Your task to perform on an android device: Open calendar and show me the fourth week of next month Image 0: 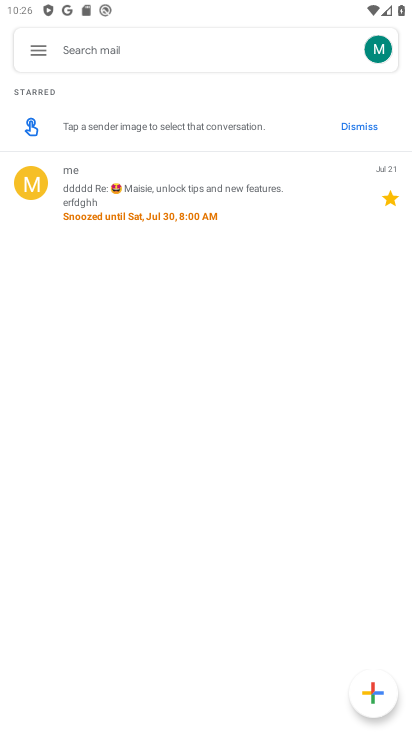
Step 0: press home button
Your task to perform on an android device: Open calendar and show me the fourth week of next month Image 1: 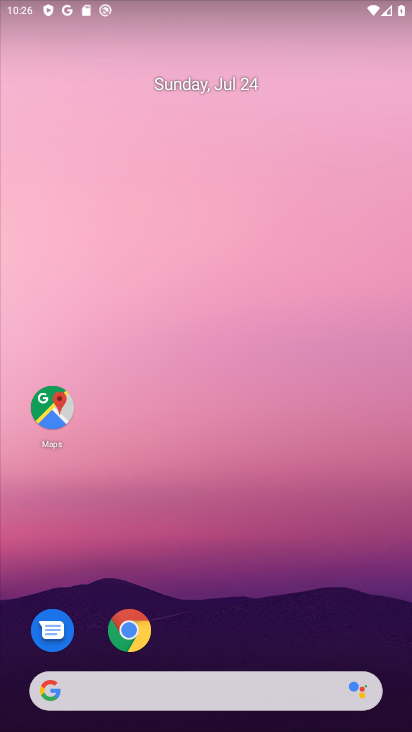
Step 1: drag from (287, 603) to (314, 143)
Your task to perform on an android device: Open calendar and show me the fourth week of next month Image 2: 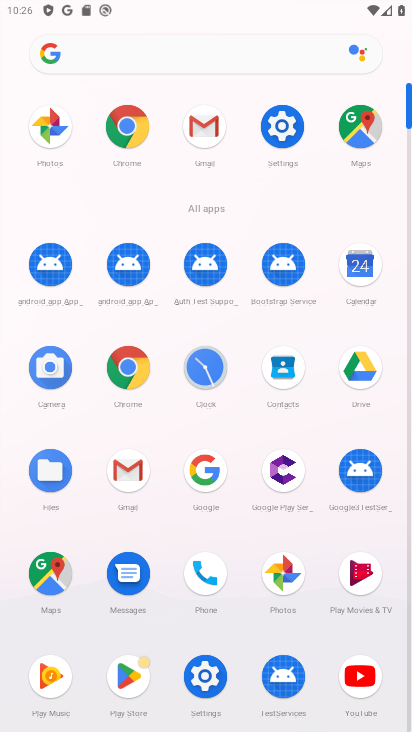
Step 2: click (359, 267)
Your task to perform on an android device: Open calendar and show me the fourth week of next month Image 3: 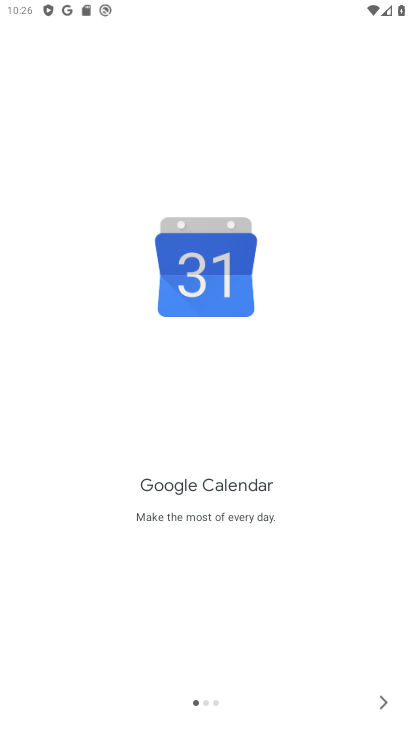
Step 3: click (382, 699)
Your task to perform on an android device: Open calendar and show me the fourth week of next month Image 4: 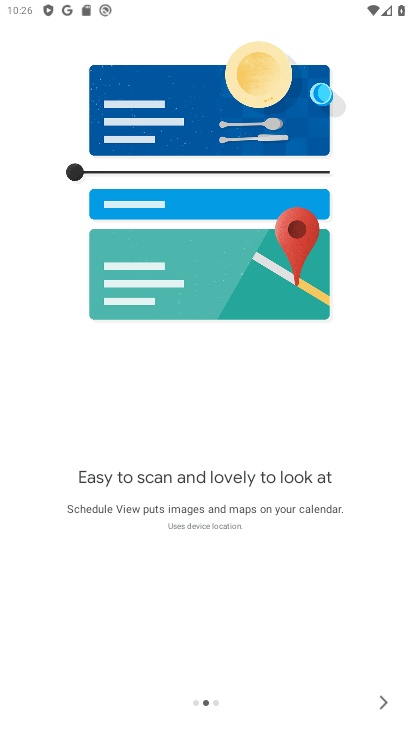
Step 4: click (382, 699)
Your task to perform on an android device: Open calendar and show me the fourth week of next month Image 5: 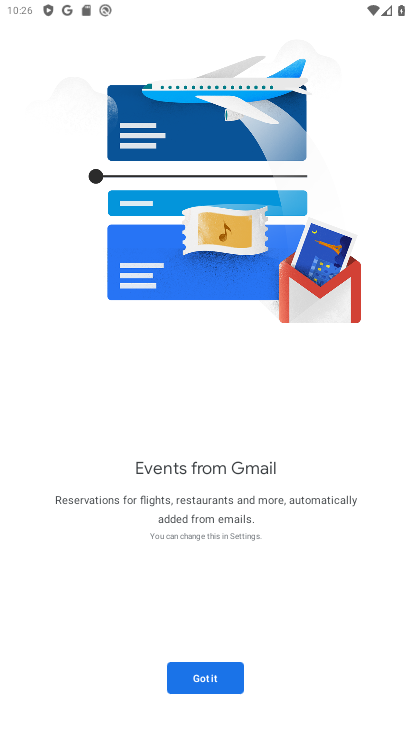
Step 5: click (201, 674)
Your task to perform on an android device: Open calendar and show me the fourth week of next month Image 6: 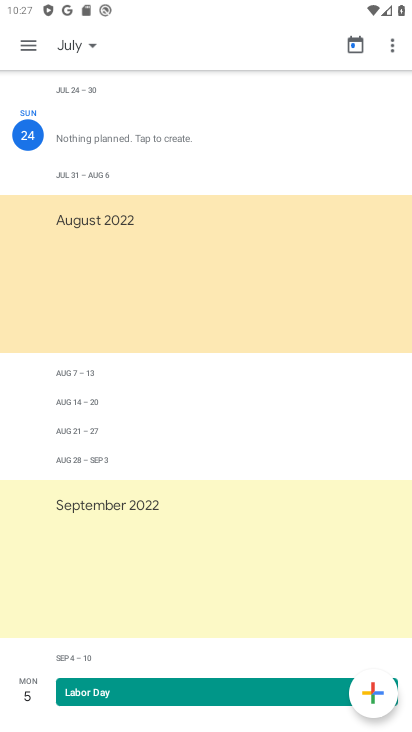
Step 6: click (23, 41)
Your task to perform on an android device: Open calendar and show me the fourth week of next month Image 7: 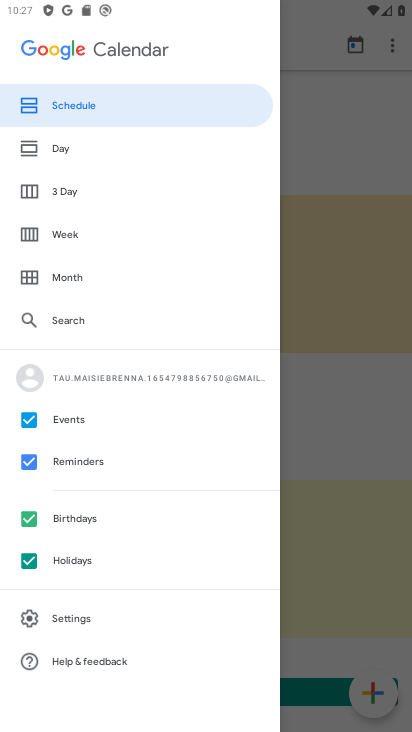
Step 7: click (70, 278)
Your task to perform on an android device: Open calendar and show me the fourth week of next month Image 8: 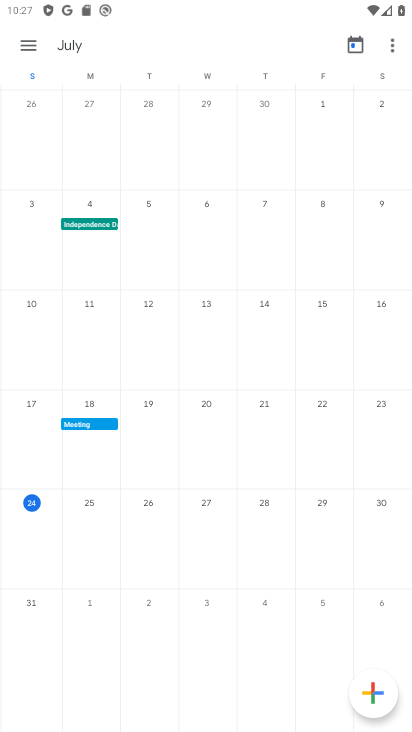
Step 8: click (32, 44)
Your task to perform on an android device: Open calendar and show me the fourth week of next month Image 9: 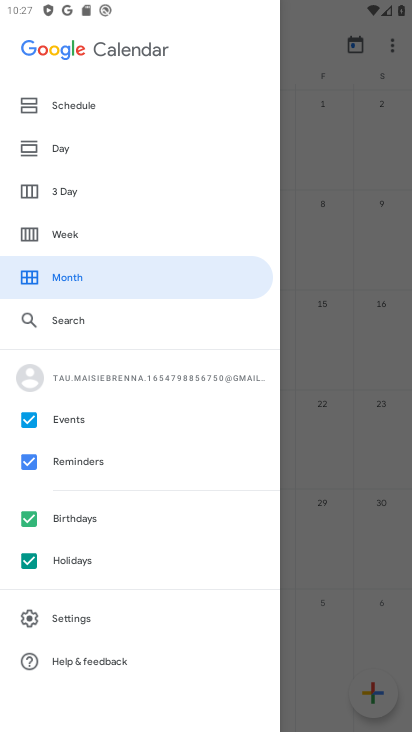
Step 9: click (82, 236)
Your task to perform on an android device: Open calendar and show me the fourth week of next month Image 10: 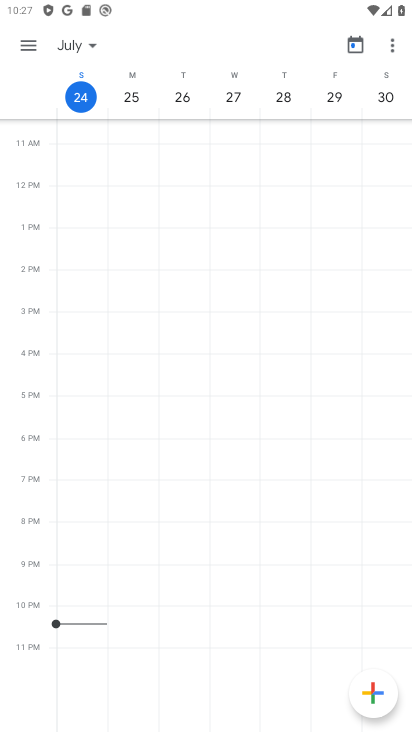
Step 10: task complete